Your task to perform on an android device: turn notification dots off Image 0: 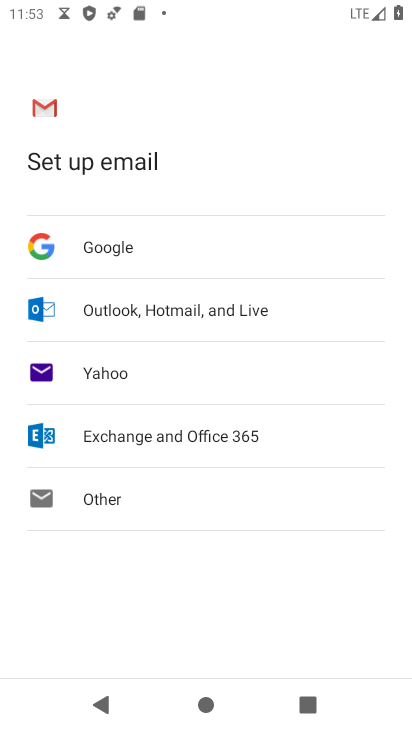
Step 0: press home button
Your task to perform on an android device: turn notification dots off Image 1: 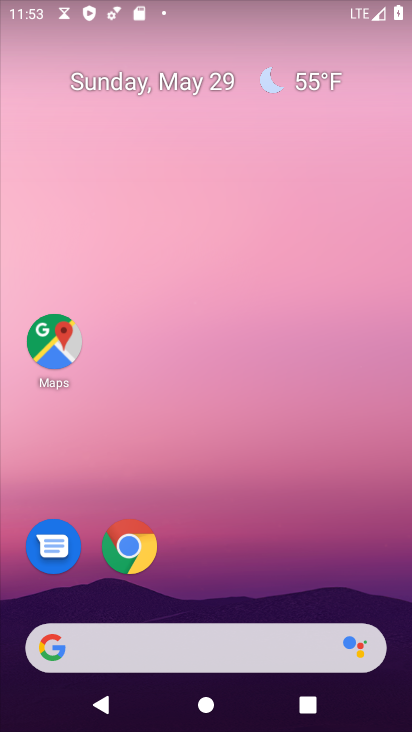
Step 1: drag from (175, 598) to (302, 37)
Your task to perform on an android device: turn notification dots off Image 2: 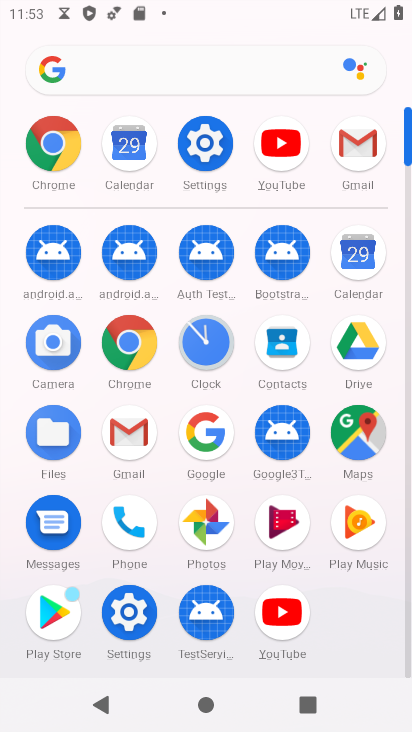
Step 2: click (208, 152)
Your task to perform on an android device: turn notification dots off Image 3: 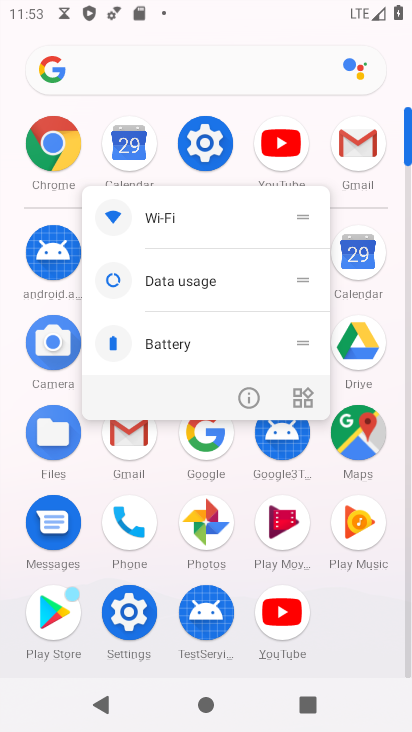
Step 3: click (201, 141)
Your task to perform on an android device: turn notification dots off Image 4: 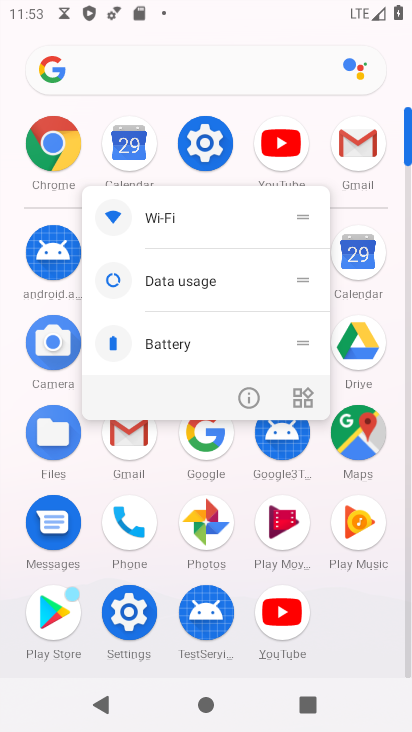
Step 4: click (201, 147)
Your task to perform on an android device: turn notification dots off Image 5: 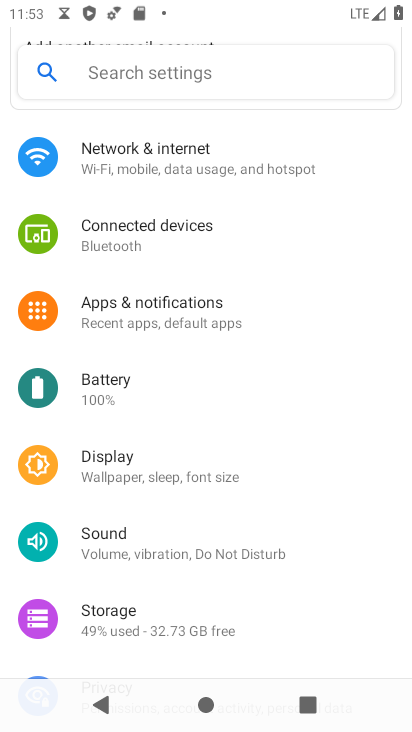
Step 5: click (181, 311)
Your task to perform on an android device: turn notification dots off Image 6: 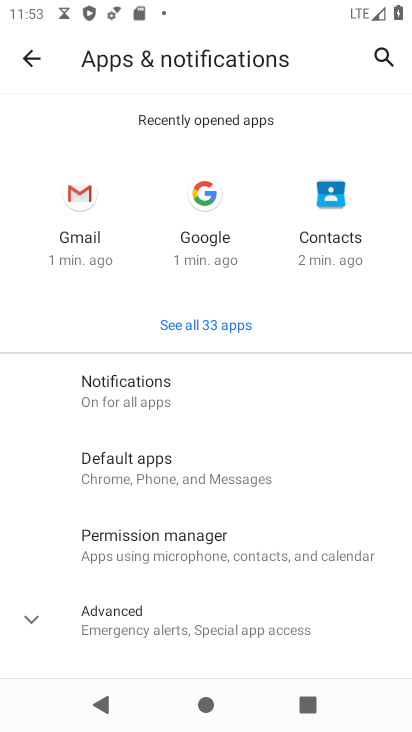
Step 6: click (154, 392)
Your task to perform on an android device: turn notification dots off Image 7: 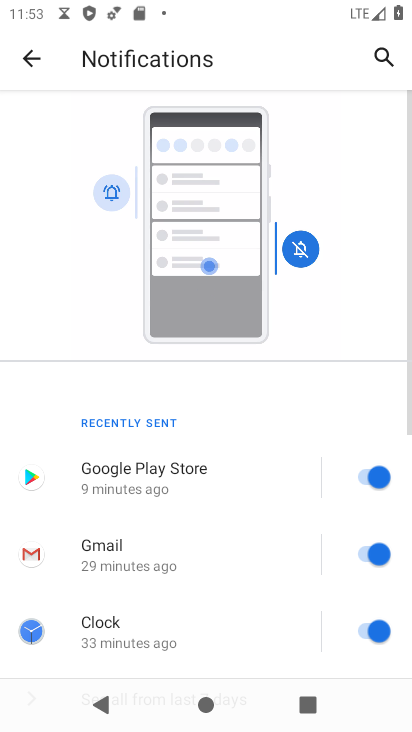
Step 7: drag from (225, 599) to (317, 65)
Your task to perform on an android device: turn notification dots off Image 8: 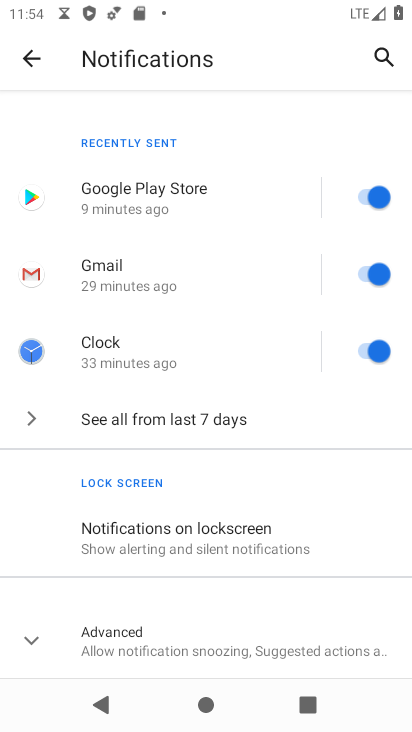
Step 8: drag from (246, 572) to (338, 118)
Your task to perform on an android device: turn notification dots off Image 9: 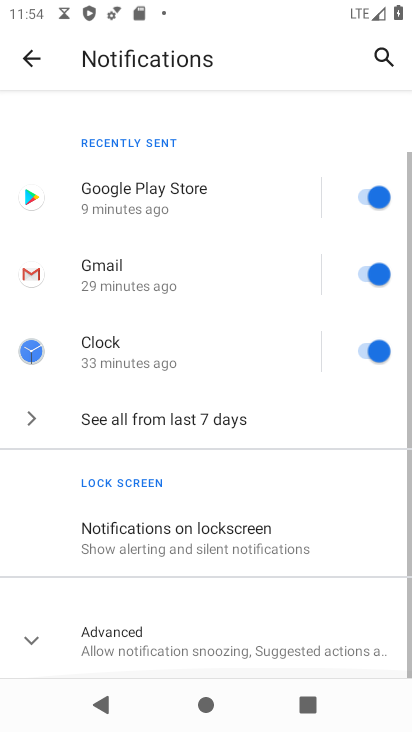
Step 9: click (165, 611)
Your task to perform on an android device: turn notification dots off Image 10: 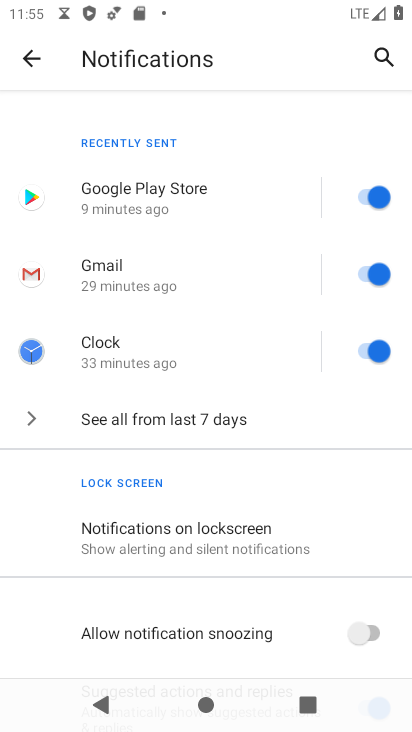
Step 10: drag from (165, 606) to (322, 136)
Your task to perform on an android device: turn notification dots off Image 11: 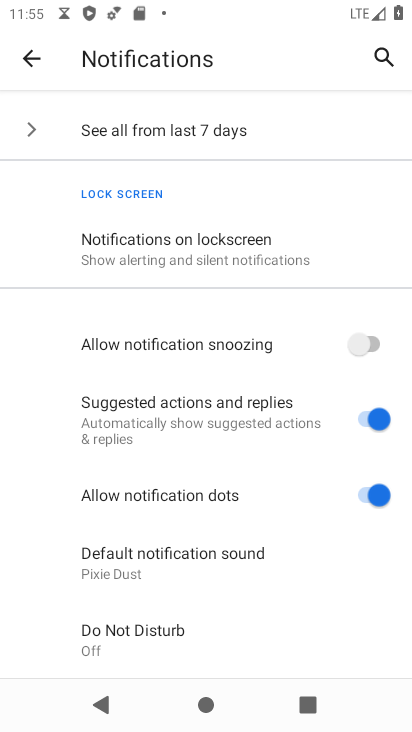
Step 11: click (368, 497)
Your task to perform on an android device: turn notification dots off Image 12: 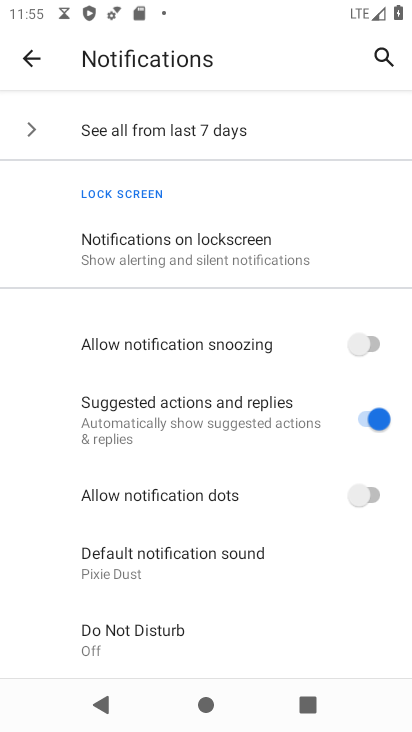
Step 12: task complete